Your task to perform on an android device: turn off javascript in the chrome app Image 0: 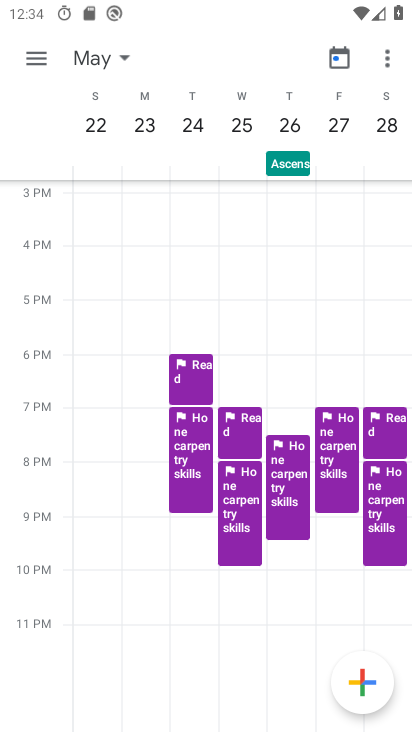
Step 0: press home button
Your task to perform on an android device: turn off javascript in the chrome app Image 1: 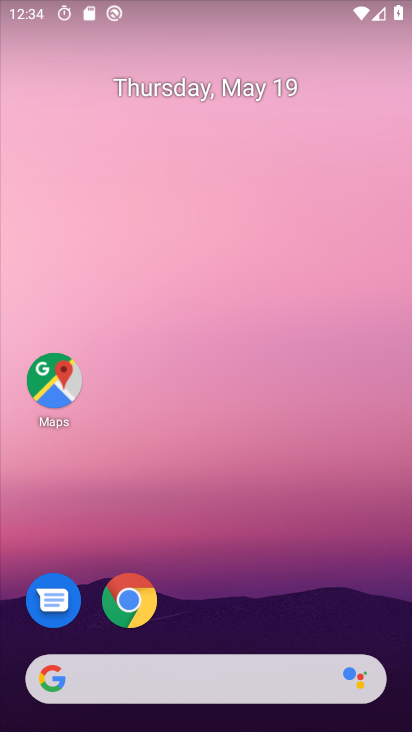
Step 1: click (116, 617)
Your task to perform on an android device: turn off javascript in the chrome app Image 2: 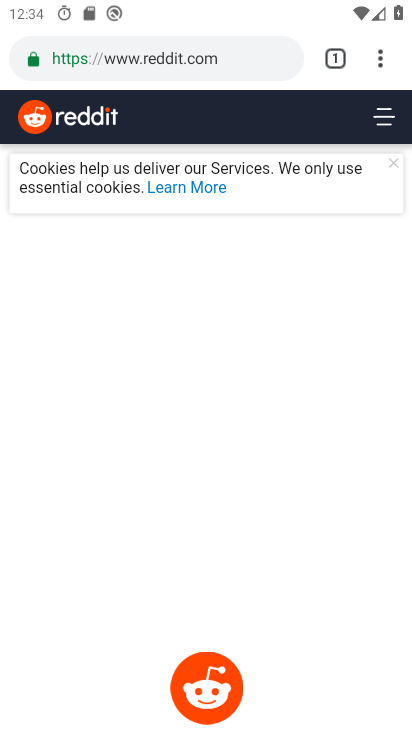
Step 2: click (382, 57)
Your task to perform on an android device: turn off javascript in the chrome app Image 3: 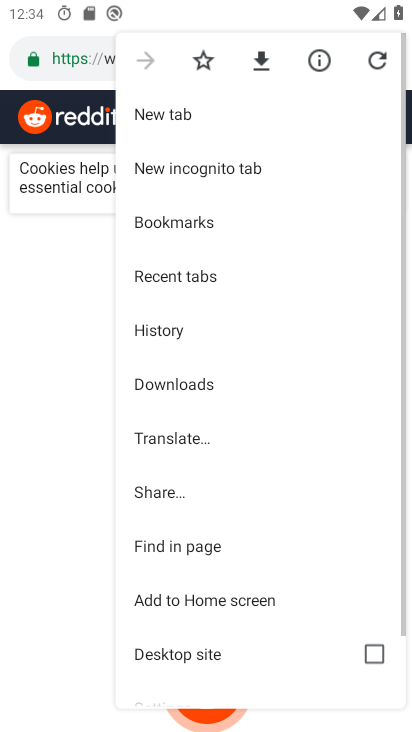
Step 3: drag from (277, 601) to (279, 149)
Your task to perform on an android device: turn off javascript in the chrome app Image 4: 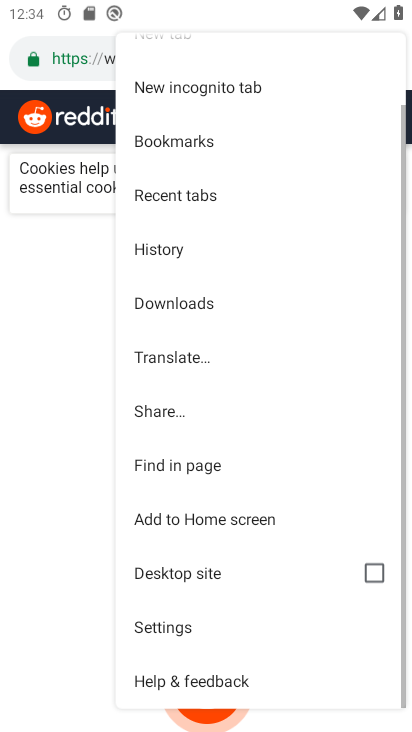
Step 4: click (210, 629)
Your task to perform on an android device: turn off javascript in the chrome app Image 5: 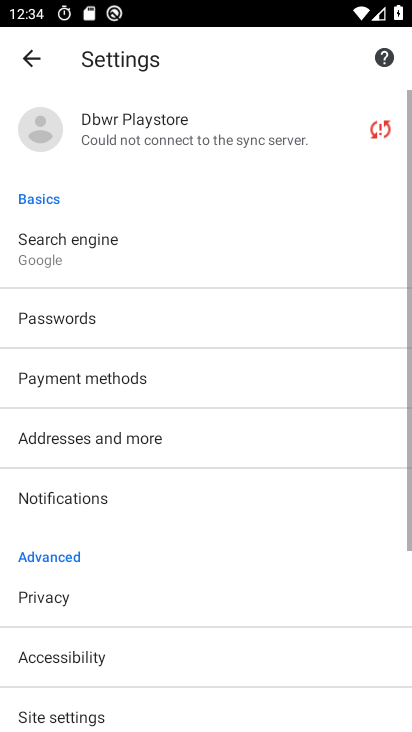
Step 5: drag from (242, 624) to (196, 172)
Your task to perform on an android device: turn off javascript in the chrome app Image 6: 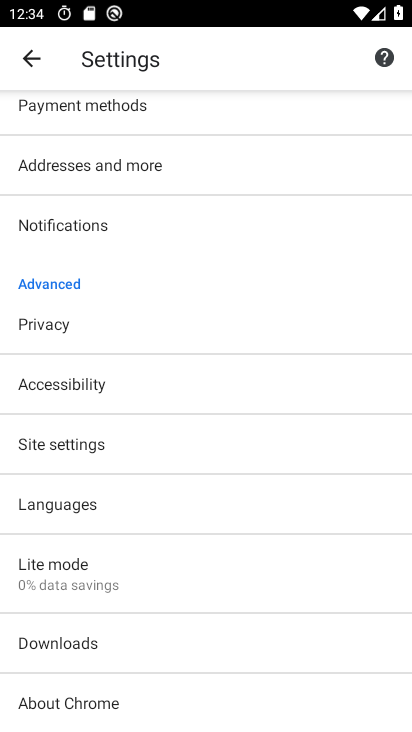
Step 6: click (117, 438)
Your task to perform on an android device: turn off javascript in the chrome app Image 7: 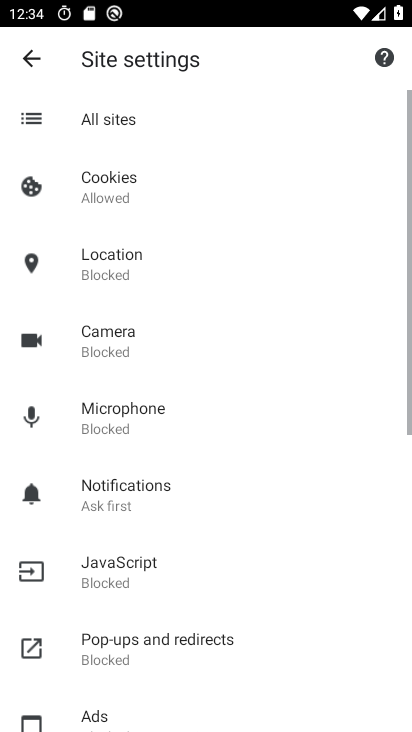
Step 7: click (204, 598)
Your task to perform on an android device: turn off javascript in the chrome app Image 8: 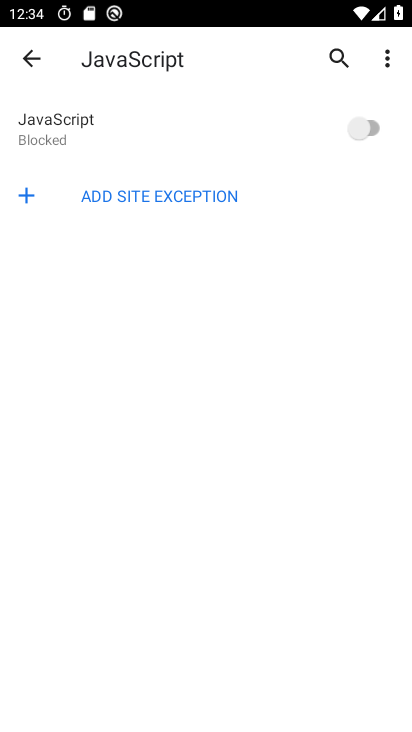
Step 8: task complete